Your task to perform on an android device: What's the weather? Image 0: 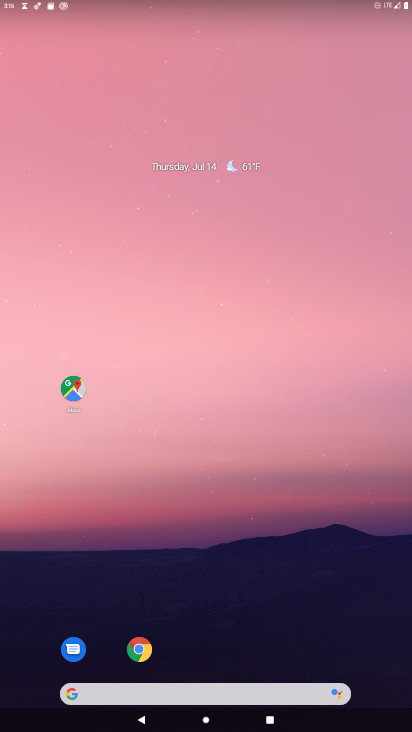
Step 0: drag from (221, 677) to (245, 8)
Your task to perform on an android device: What's the weather? Image 1: 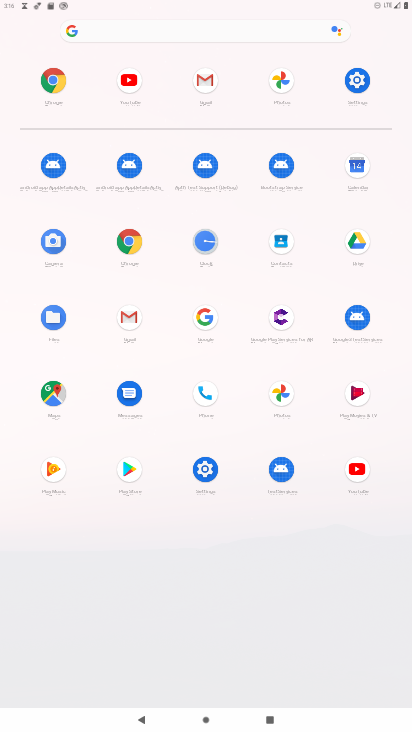
Step 1: click (137, 242)
Your task to perform on an android device: What's the weather? Image 2: 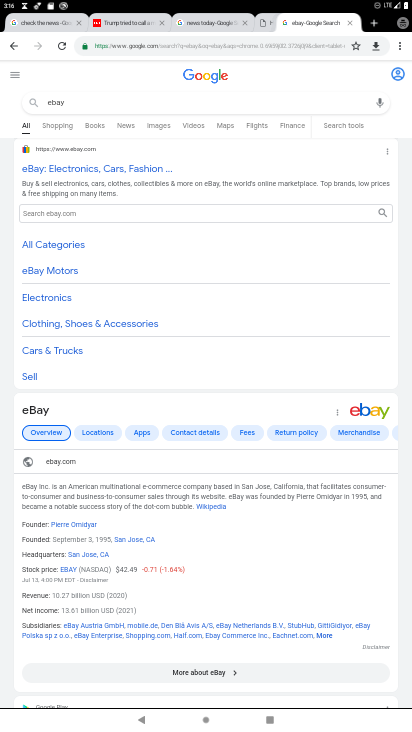
Step 2: click (194, 46)
Your task to perform on an android device: What's the weather? Image 3: 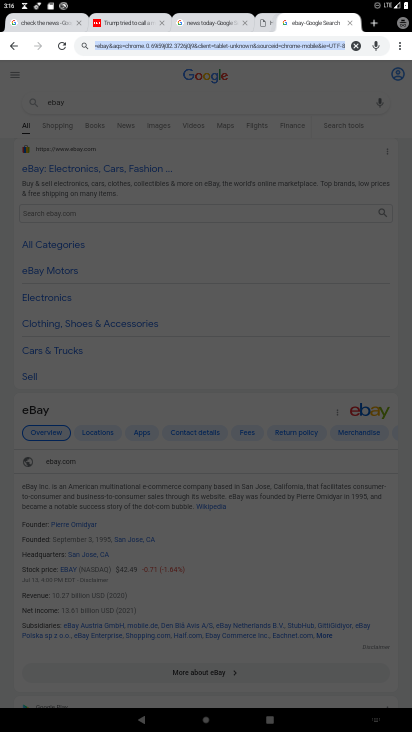
Step 3: type "whats the weather"
Your task to perform on an android device: What's the weather? Image 4: 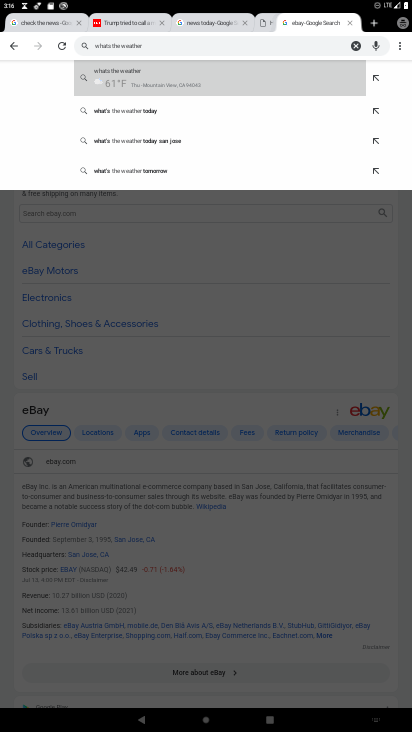
Step 4: click (97, 83)
Your task to perform on an android device: What's the weather? Image 5: 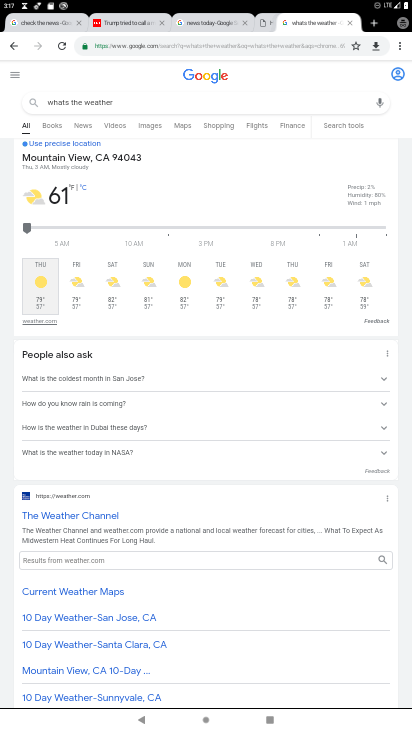
Step 5: task complete